Your task to perform on an android device: toggle sleep mode Image 0: 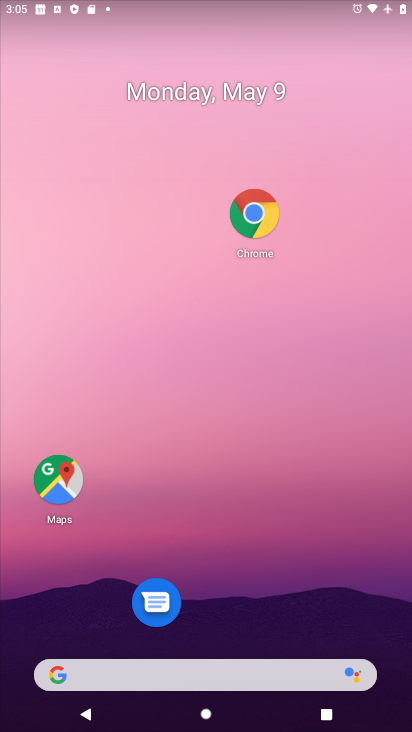
Step 0: drag from (324, 591) to (270, 285)
Your task to perform on an android device: toggle sleep mode Image 1: 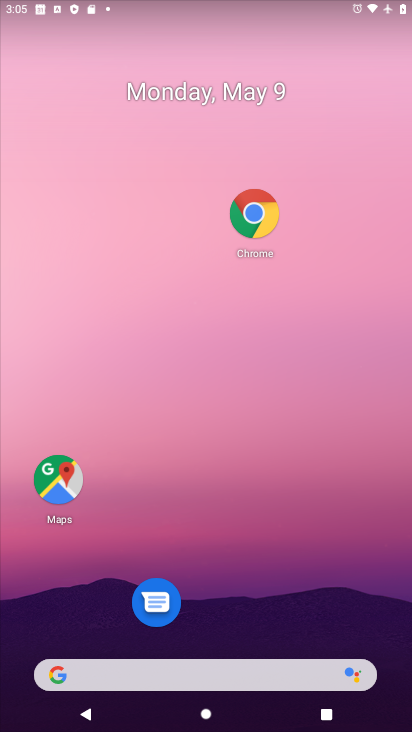
Step 1: drag from (261, 545) to (174, 1)
Your task to perform on an android device: toggle sleep mode Image 2: 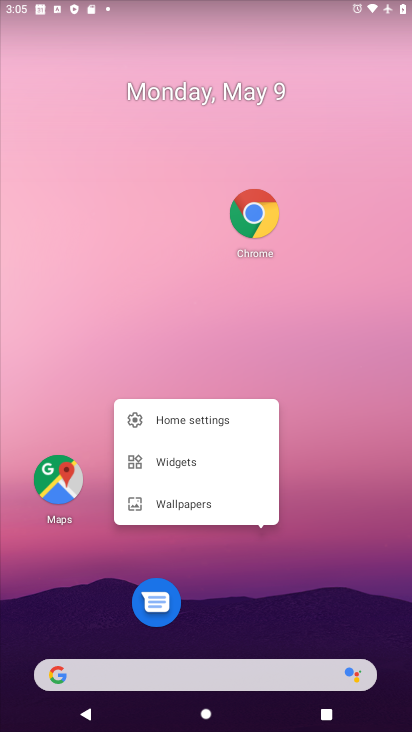
Step 2: click (324, 542)
Your task to perform on an android device: toggle sleep mode Image 3: 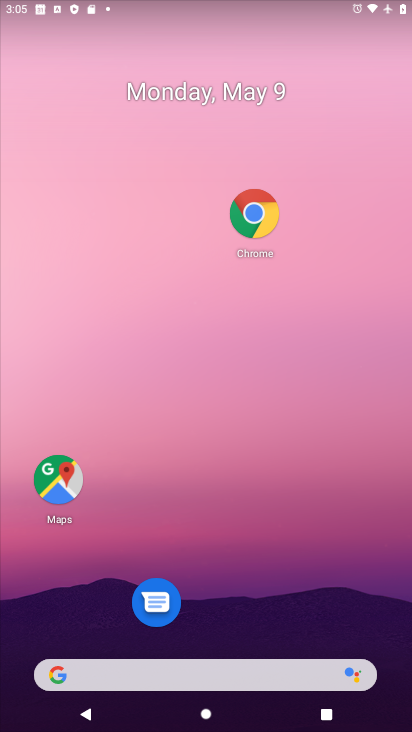
Step 3: drag from (324, 542) to (230, 140)
Your task to perform on an android device: toggle sleep mode Image 4: 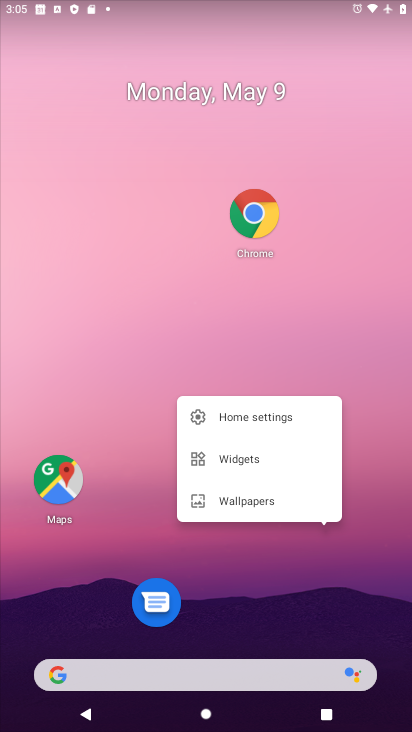
Step 4: click (238, 555)
Your task to perform on an android device: toggle sleep mode Image 5: 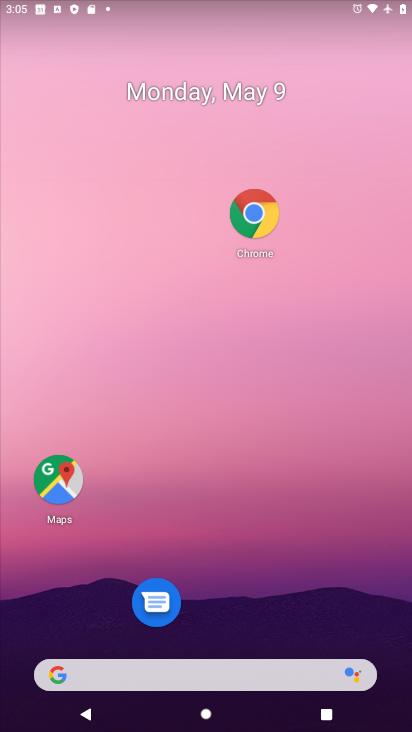
Step 5: drag from (238, 555) to (187, 3)
Your task to perform on an android device: toggle sleep mode Image 6: 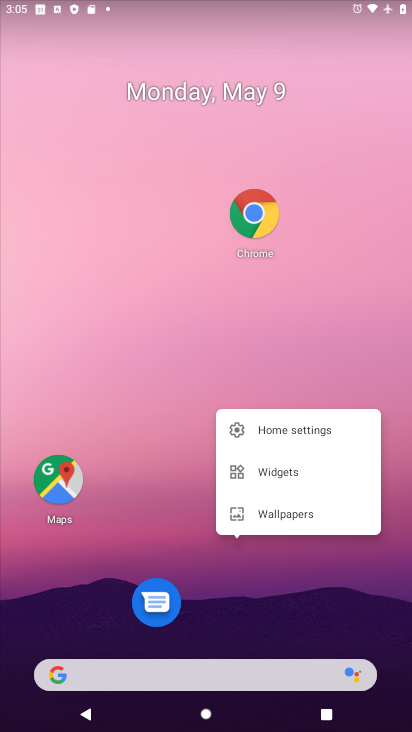
Step 6: click (280, 629)
Your task to perform on an android device: toggle sleep mode Image 7: 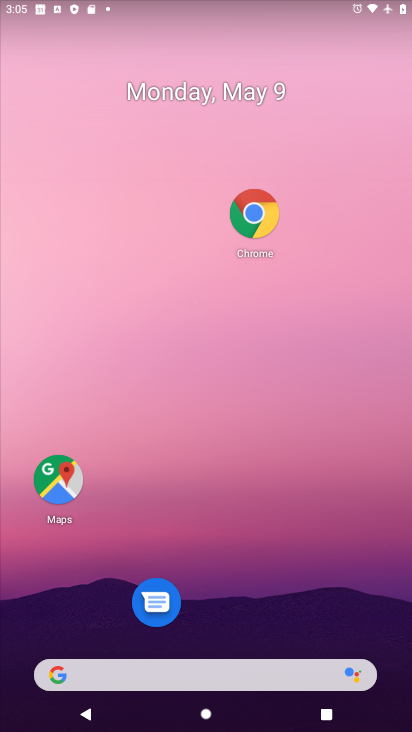
Step 7: drag from (280, 629) to (254, 72)
Your task to perform on an android device: toggle sleep mode Image 8: 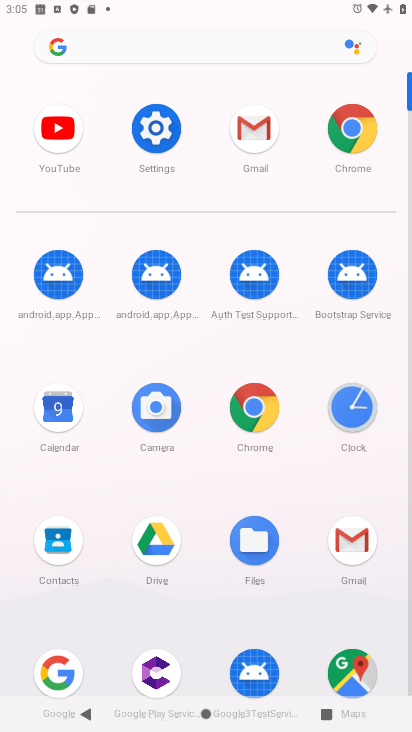
Step 8: click (168, 119)
Your task to perform on an android device: toggle sleep mode Image 9: 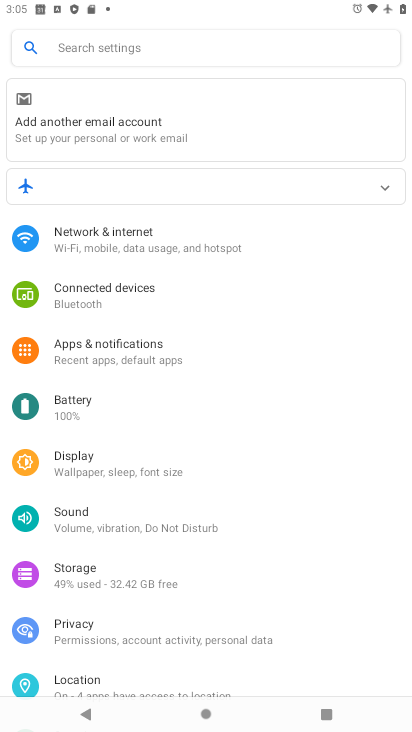
Step 9: click (144, 461)
Your task to perform on an android device: toggle sleep mode Image 10: 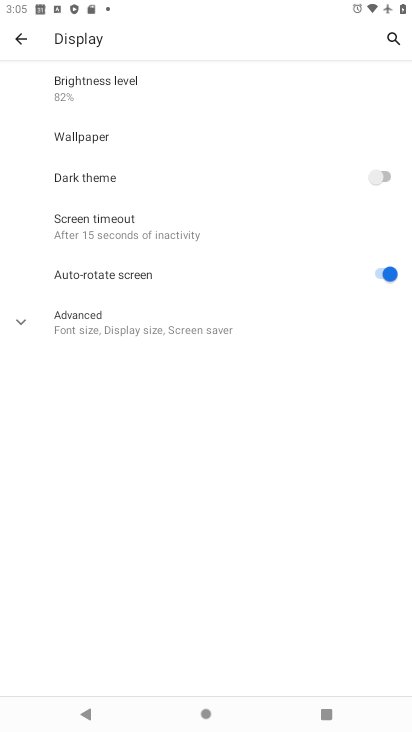
Step 10: click (219, 242)
Your task to perform on an android device: toggle sleep mode Image 11: 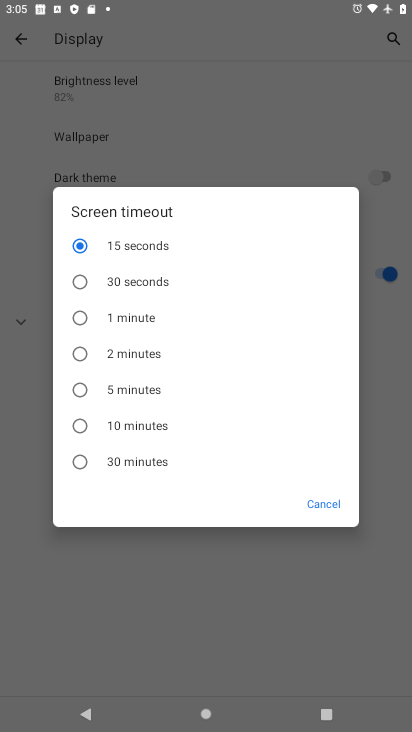
Step 11: click (201, 279)
Your task to perform on an android device: toggle sleep mode Image 12: 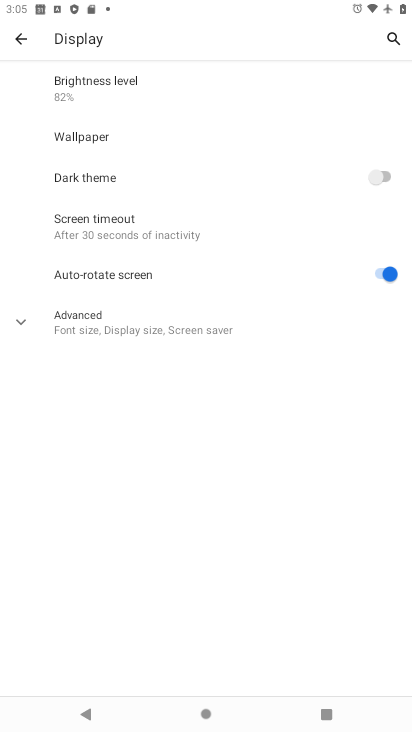
Step 12: task complete